Your task to perform on an android device: What's the weather going to be tomorrow? Image 0: 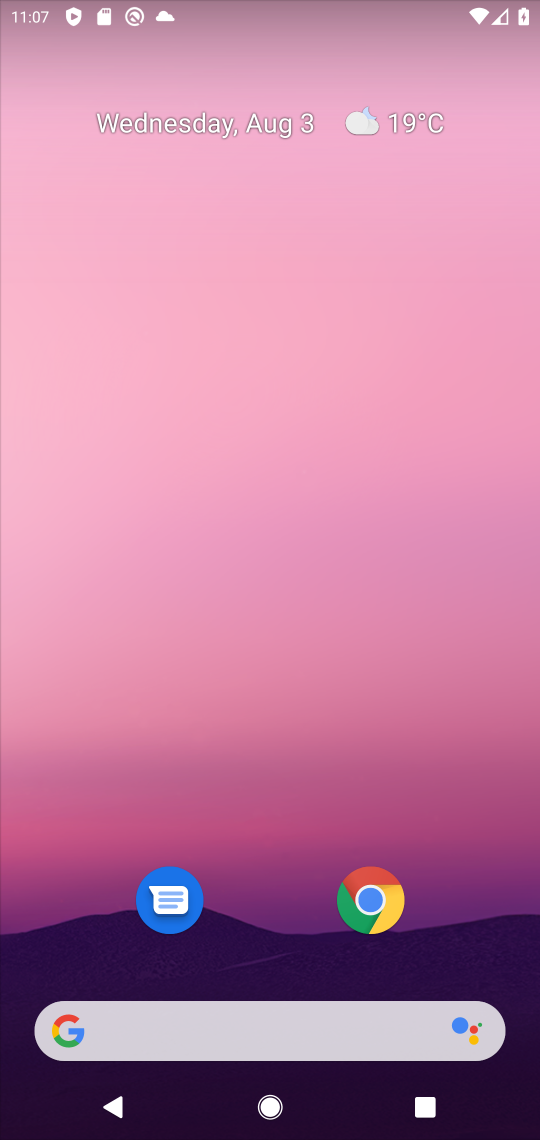
Step 0: click (49, 1027)
Your task to perform on an android device: What's the weather going to be tomorrow? Image 1: 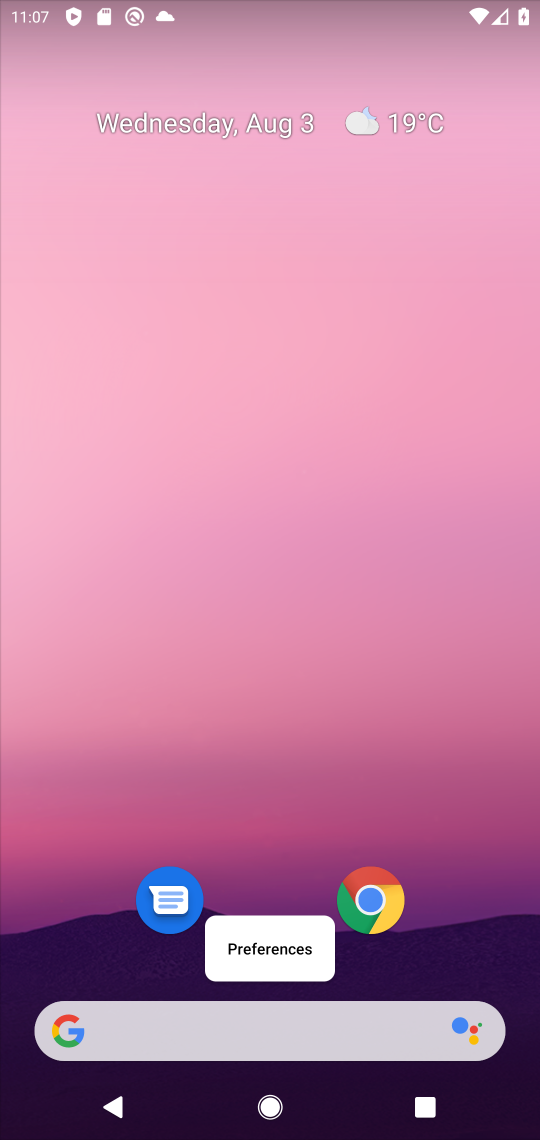
Step 1: click (61, 1036)
Your task to perform on an android device: What's the weather going to be tomorrow? Image 2: 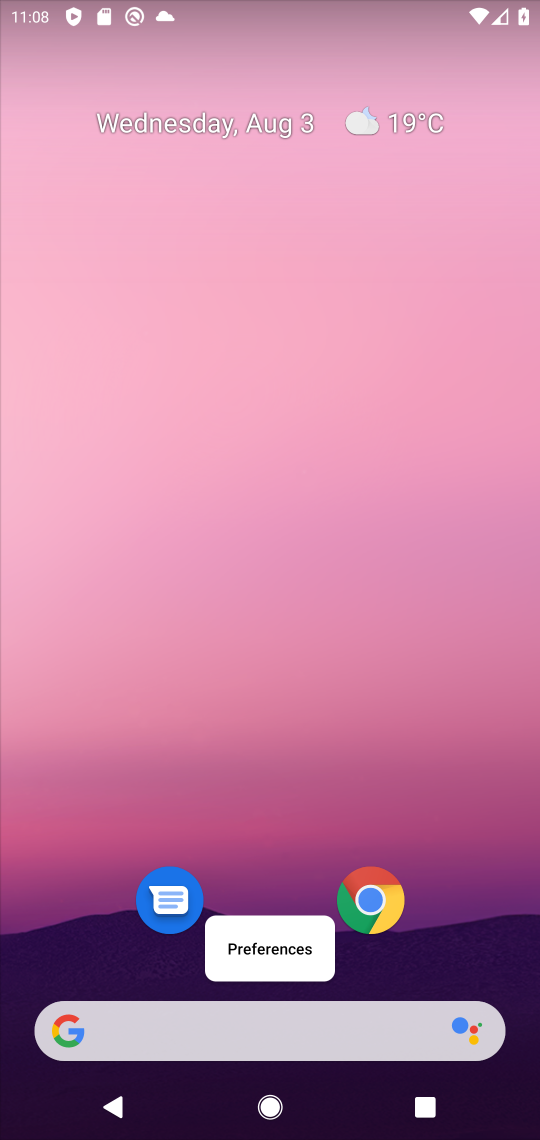
Step 2: click (50, 1035)
Your task to perform on an android device: What's the weather going to be tomorrow? Image 3: 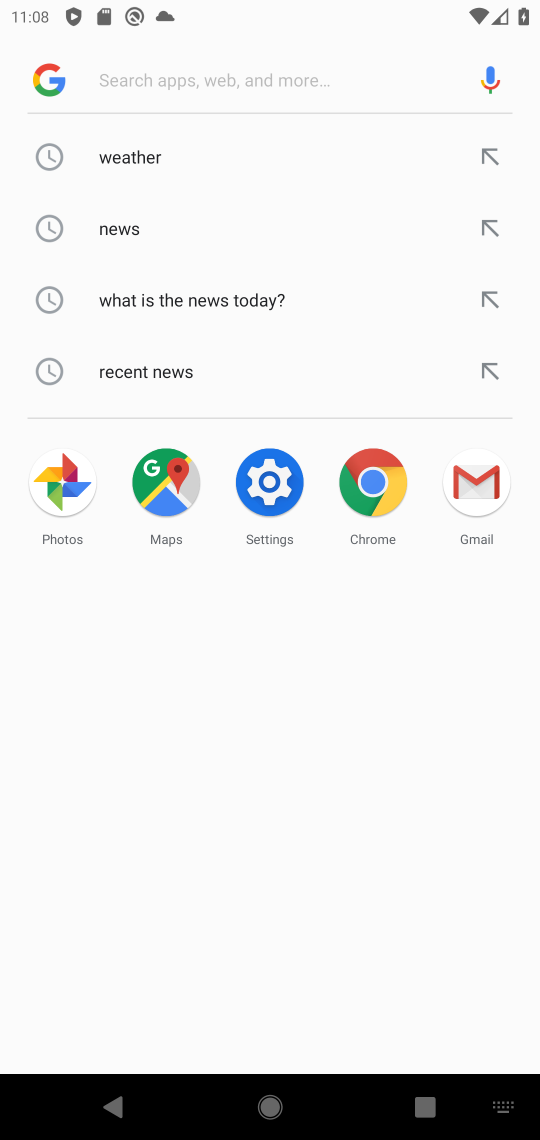
Step 3: type "What's the weather going to be tomorrow?"
Your task to perform on an android device: What's the weather going to be tomorrow? Image 4: 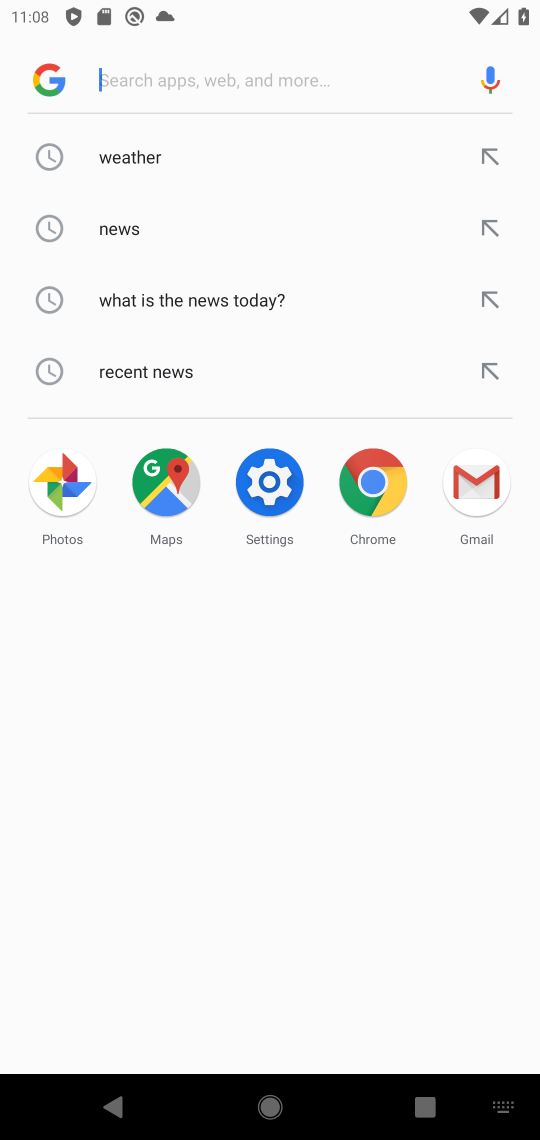
Step 4: click (238, 79)
Your task to perform on an android device: What's the weather going to be tomorrow? Image 5: 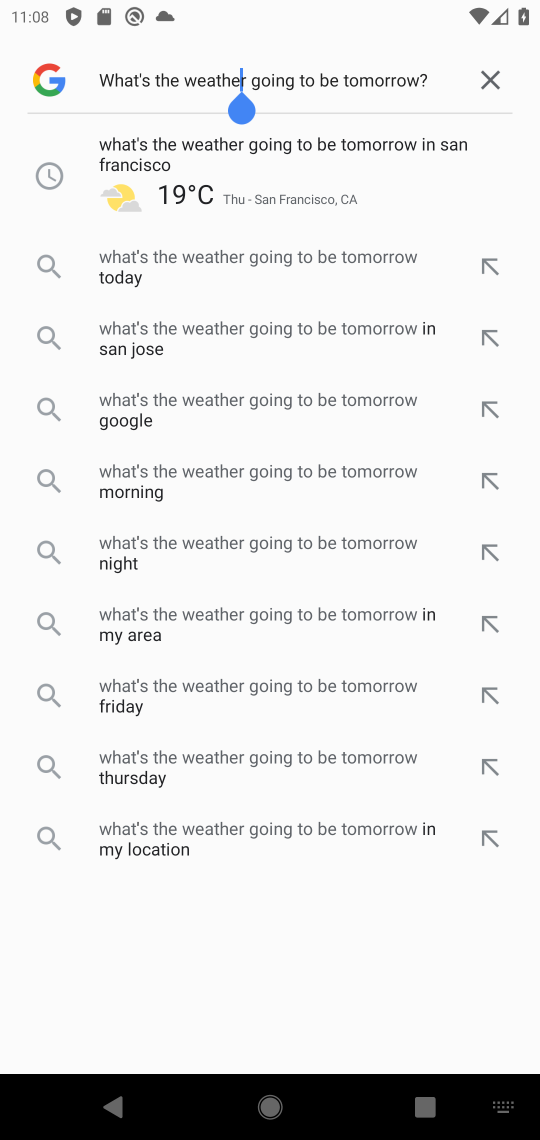
Step 5: type "What's the weather going to be tomorrow?"
Your task to perform on an android device: What's the weather going to be tomorrow? Image 6: 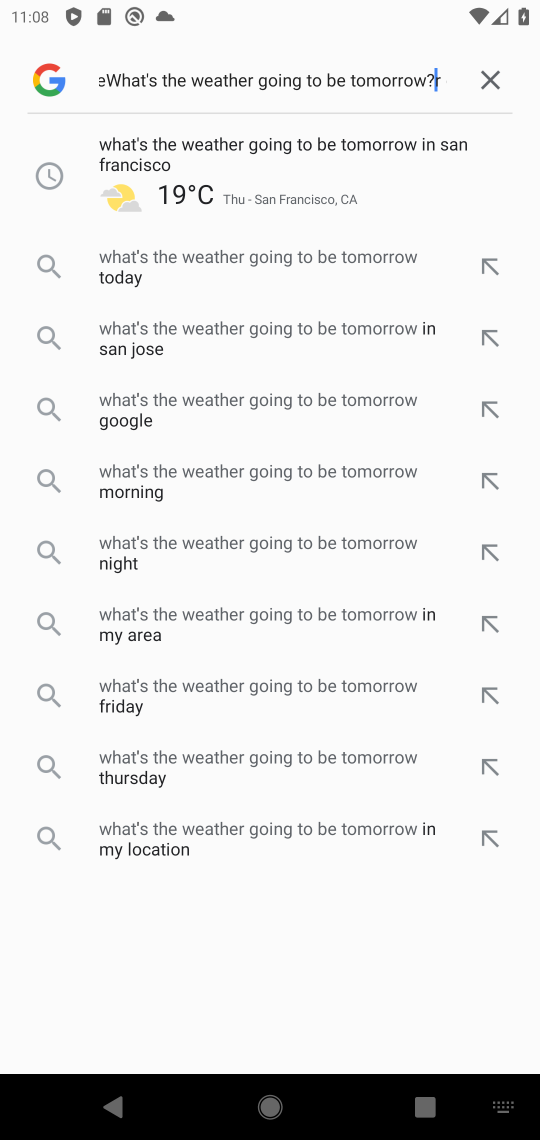
Step 6: press enter
Your task to perform on an android device: What's the weather going to be tomorrow? Image 7: 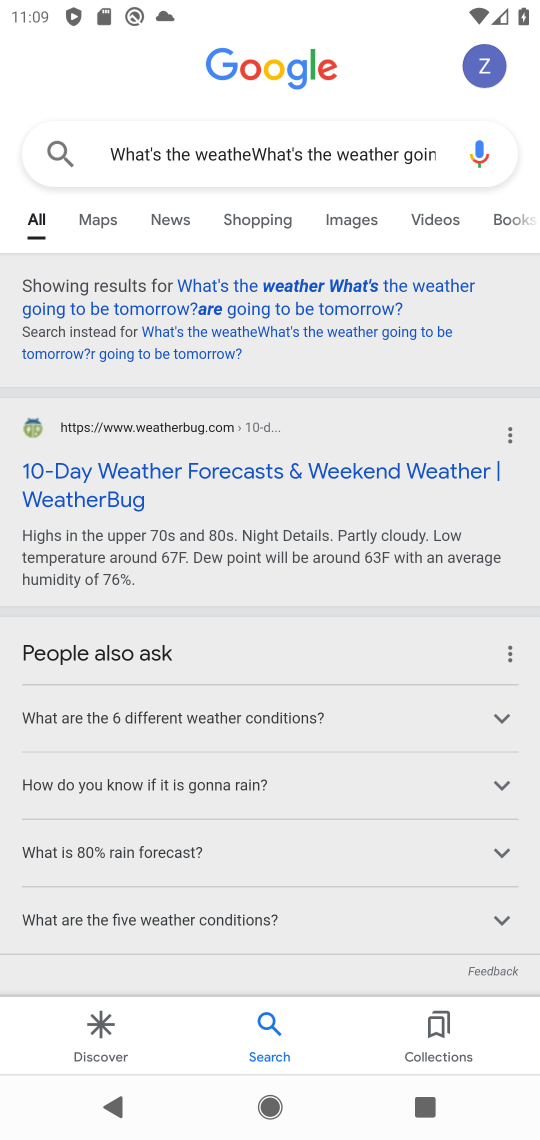
Step 7: task complete